Your task to perform on an android device: find photos in the google photos app Image 0: 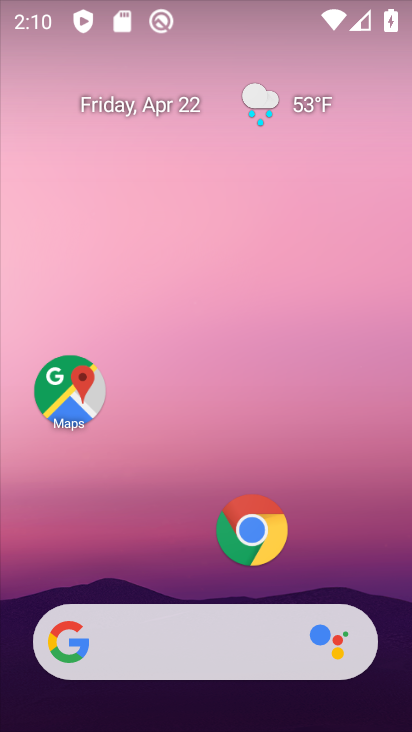
Step 0: drag from (193, 313) to (191, 262)
Your task to perform on an android device: find photos in the google photos app Image 1: 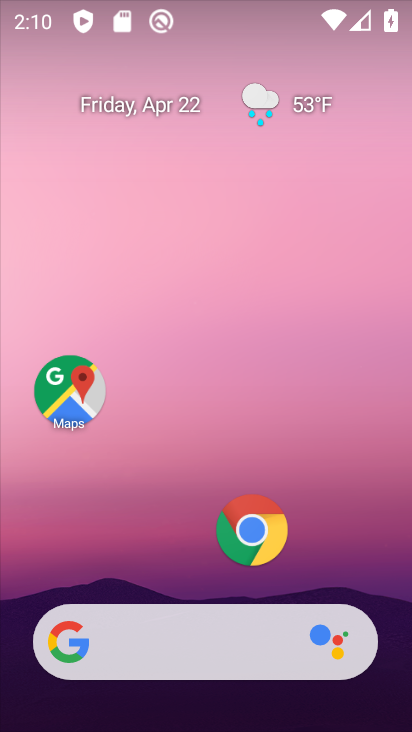
Step 1: drag from (250, 650) to (180, 251)
Your task to perform on an android device: find photos in the google photos app Image 2: 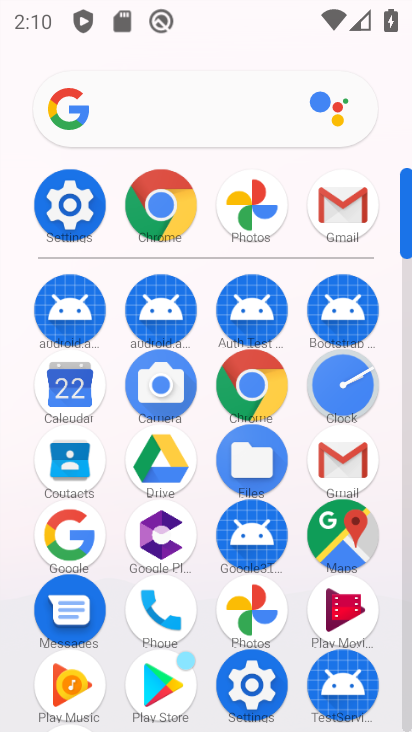
Step 2: click (266, 599)
Your task to perform on an android device: find photos in the google photos app Image 3: 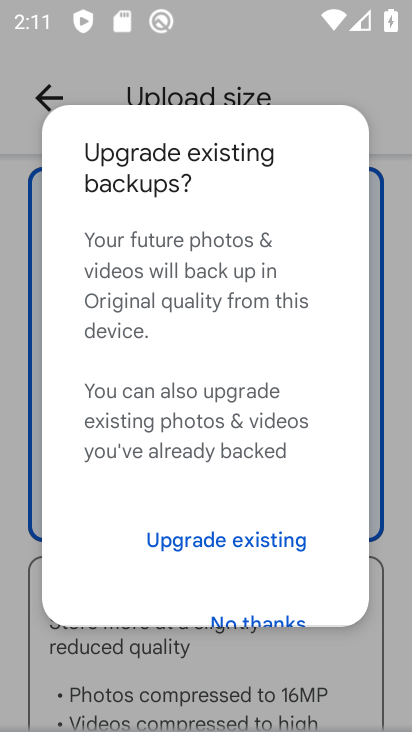
Step 3: press back button
Your task to perform on an android device: find photos in the google photos app Image 4: 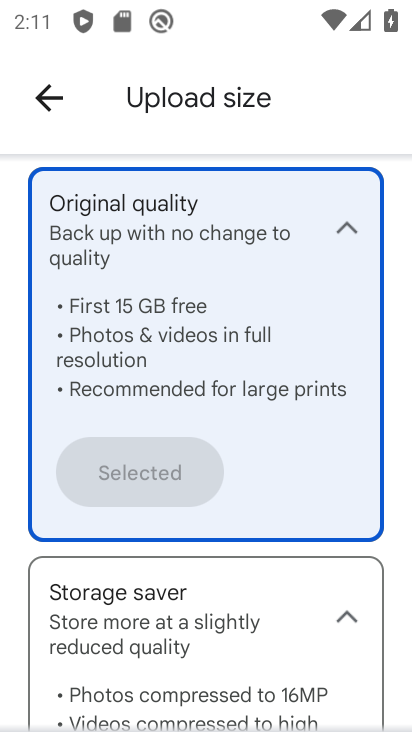
Step 4: press back button
Your task to perform on an android device: find photos in the google photos app Image 5: 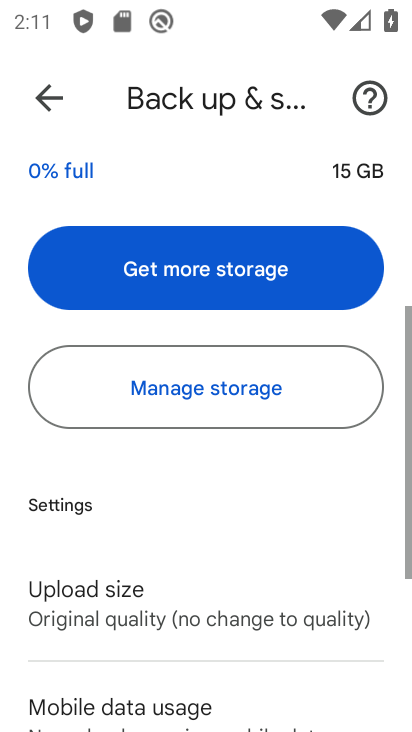
Step 5: press back button
Your task to perform on an android device: find photos in the google photos app Image 6: 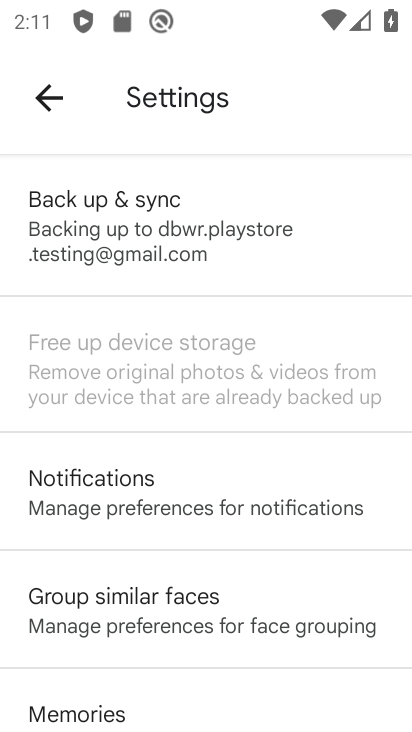
Step 6: press back button
Your task to perform on an android device: find photos in the google photos app Image 7: 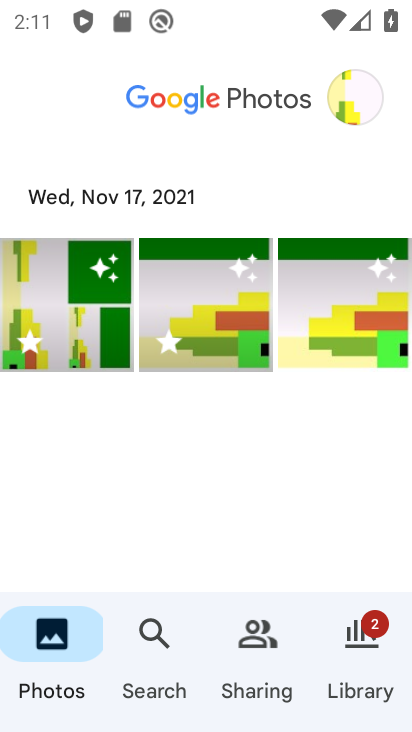
Step 7: click (51, 622)
Your task to perform on an android device: find photos in the google photos app Image 8: 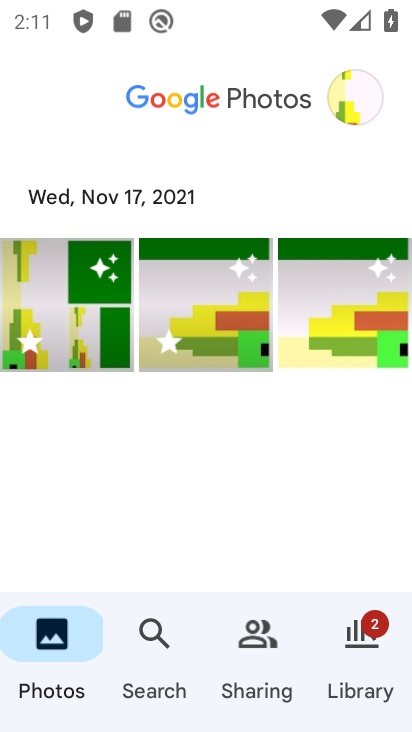
Step 8: drag from (192, 510) to (170, 408)
Your task to perform on an android device: find photos in the google photos app Image 9: 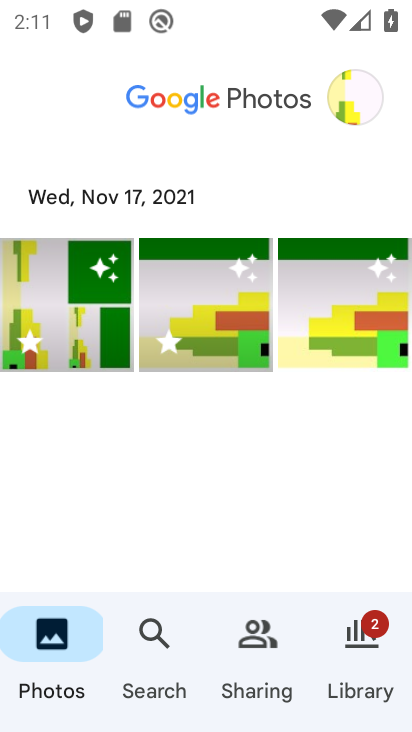
Step 9: click (55, 633)
Your task to perform on an android device: find photos in the google photos app Image 10: 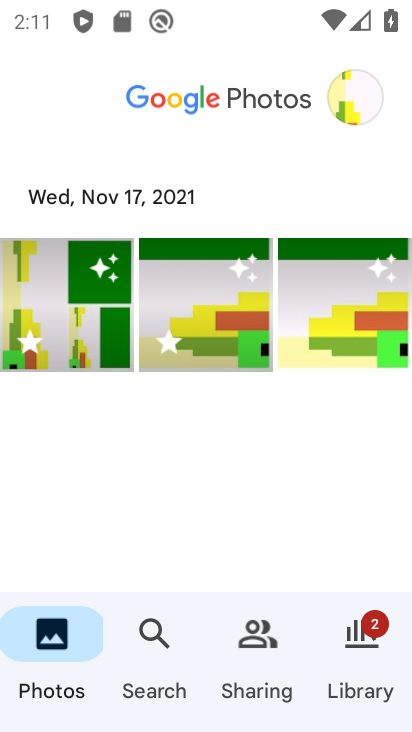
Step 10: task complete